Your task to perform on an android device: turn on the 24-hour format for clock Image 0: 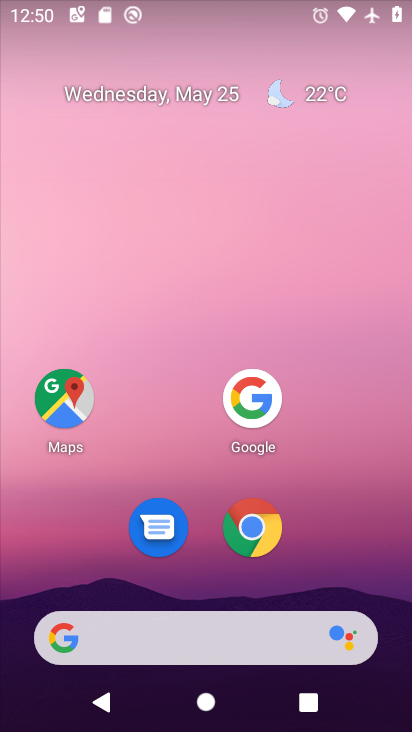
Step 0: drag from (187, 644) to (306, 161)
Your task to perform on an android device: turn on the 24-hour format for clock Image 1: 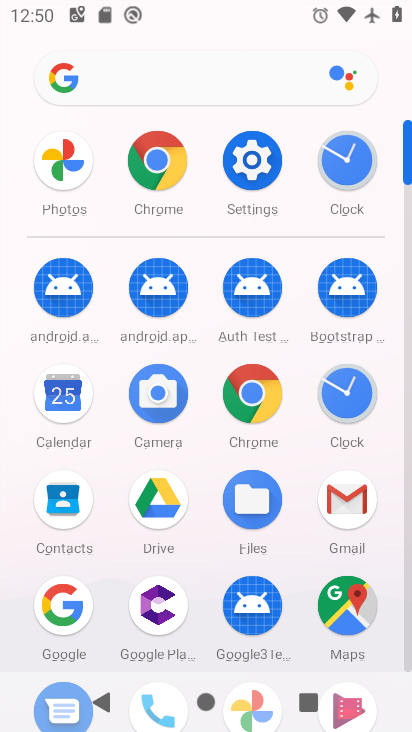
Step 1: click (338, 404)
Your task to perform on an android device: turn on the 24-hour format for clock Image 2: 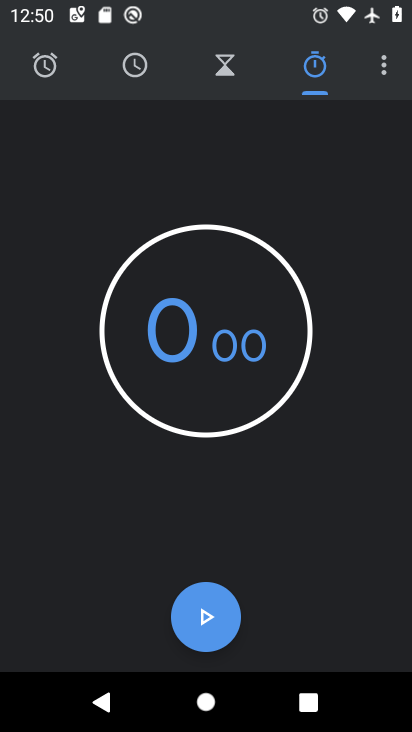
Step 2: click (380, 68)
Your task to perform on an android device: turn on the 24-hour format for clock Image 3: 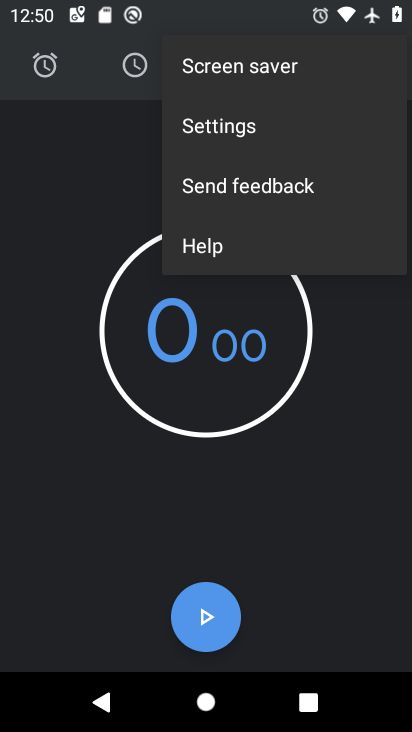
Step 3: click (244, 130)
Your task to perform on an android device: turn on the 24-hour format for clock Image 4: 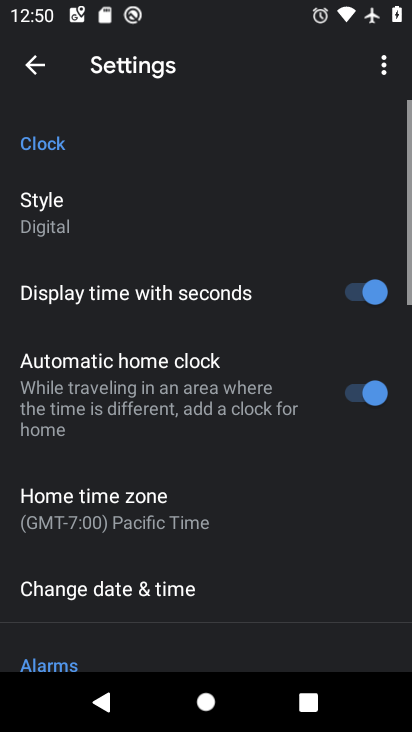
Step 4: drag from (224, 560) to (358, 142)
Your task to perform on an android device: turn on the 24-hour format for clock Image 5: 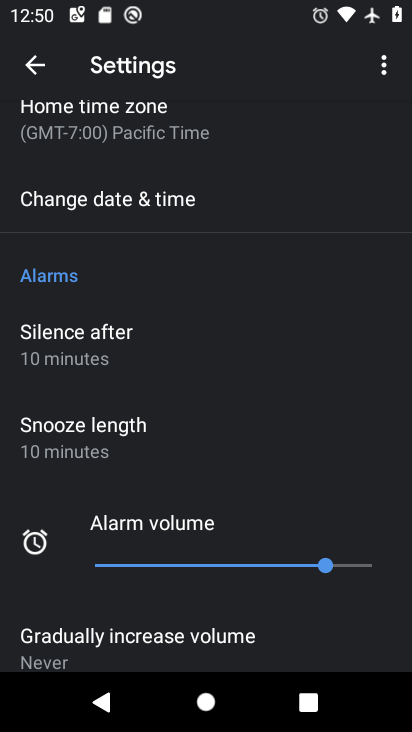
Step 5: drag from (220, 514) to (273, 319)
Your task to perform on an android device: turn on the 24-hour format for clock Image 6: 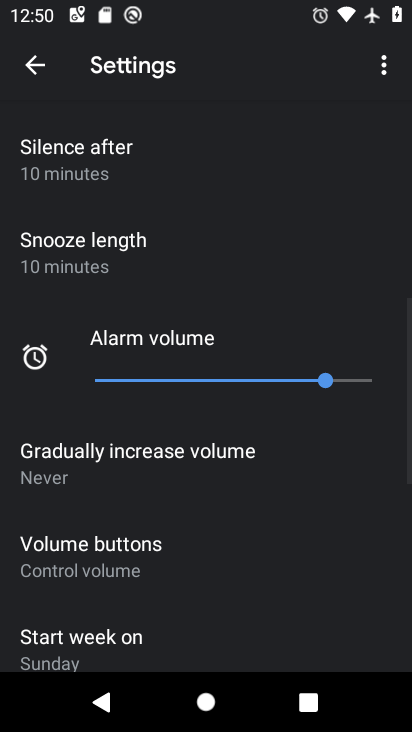
Step 6: drag from (206, 209) to (137, 599)
Your task to perform on an android device: turn on the 24-hour format for clock Image 7: 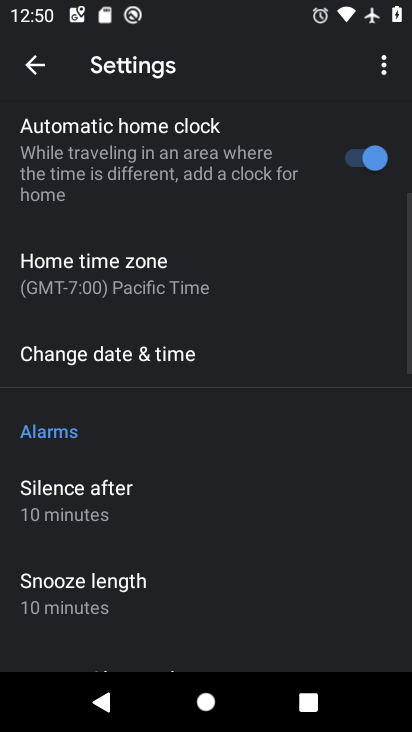
Step 7: click (132, 358)
Your task to perform on an android device: turn on the 24-hour format for clock Image 8: 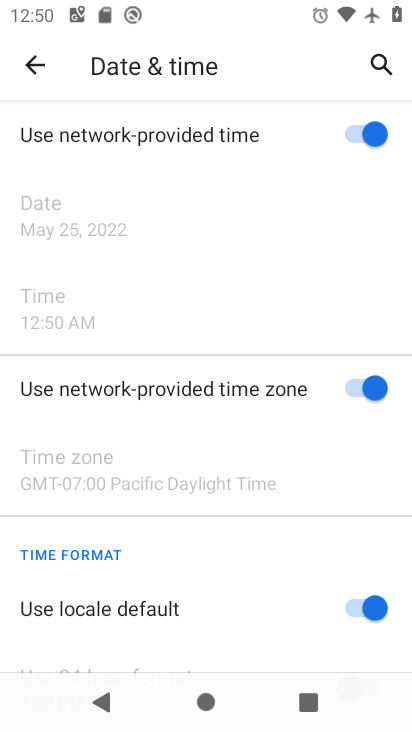
Step 8: drag from (212, 640) to (334, 274)
Your task to perform on an android device: turn on the 24-hour format for clock Image 9: 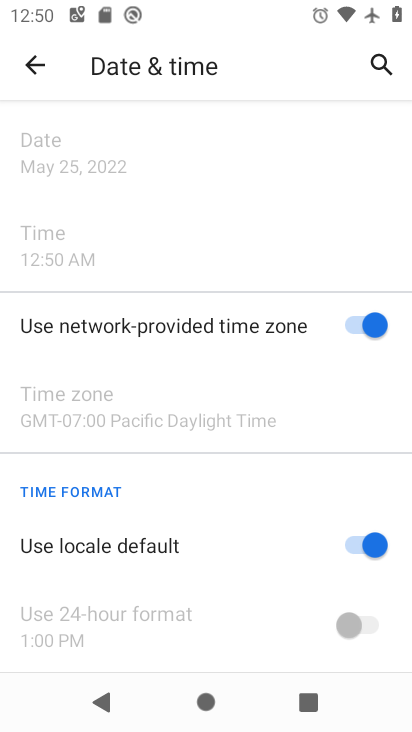
Step 9: click (348, 541)
Your task to perform on an android device: turn on the 24-hour format for clock Image 10: 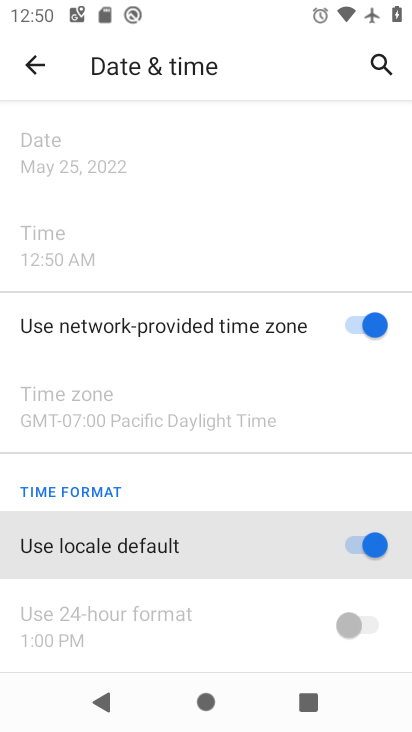
Step 10: click (373, 627)
Your task to perform on an android device: turn on the 24-hour format for clock Image 11: 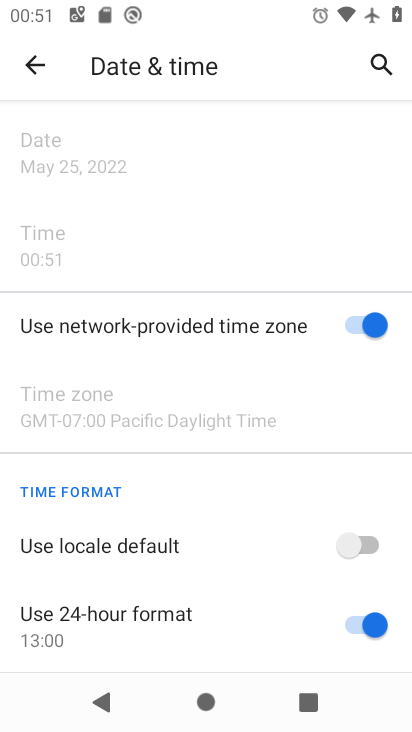
Step 11: task complete